Your task to perform on an android device: Open Google Maps and go to "Timeline" Image 0: 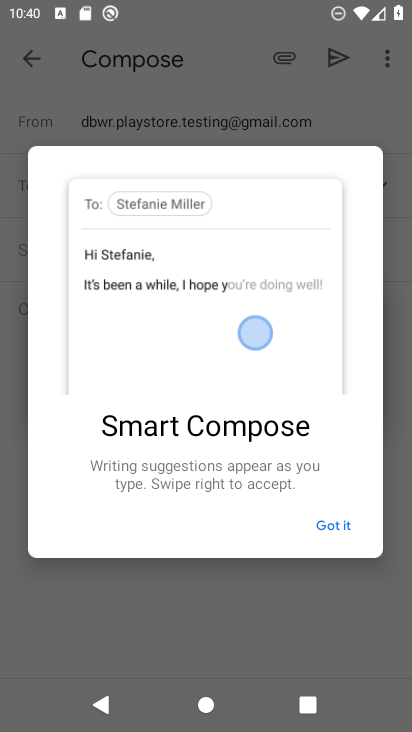
Step 0: press home button
Your task to perform on an android device: Open Google Maps and go to "Timeline" Image 1: 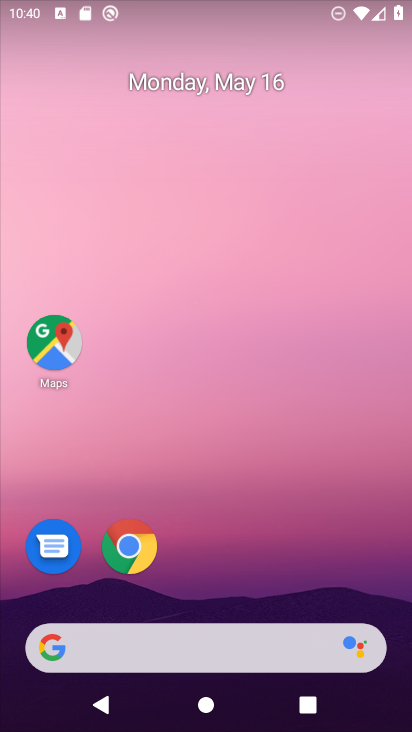
Step 1: click (46, 354)
Your task to perform on an android device: Open Google Maps and go to "Timeline" Image 2: 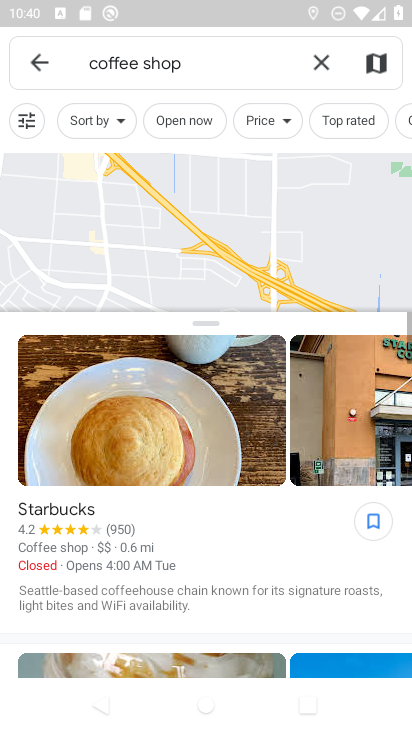
Step 2: click (50, 66)
Your task to perform on an android device: Open Google Maps and go to "Timeline" Image 3: 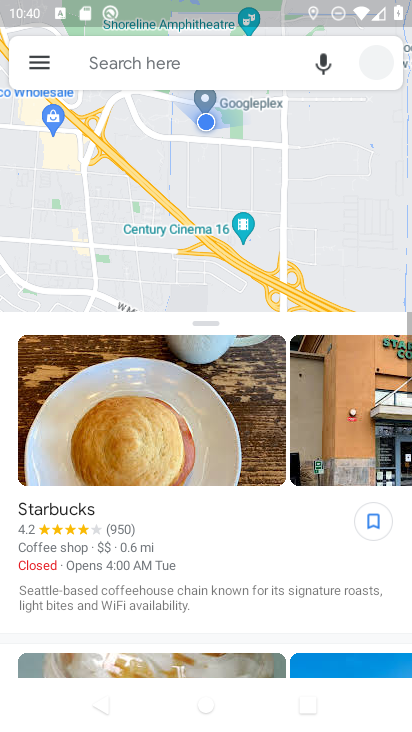
Step 3: click (50, 66)
Your task to perform on an android device: Open Google Maps and go to "Timeline" Image 4: 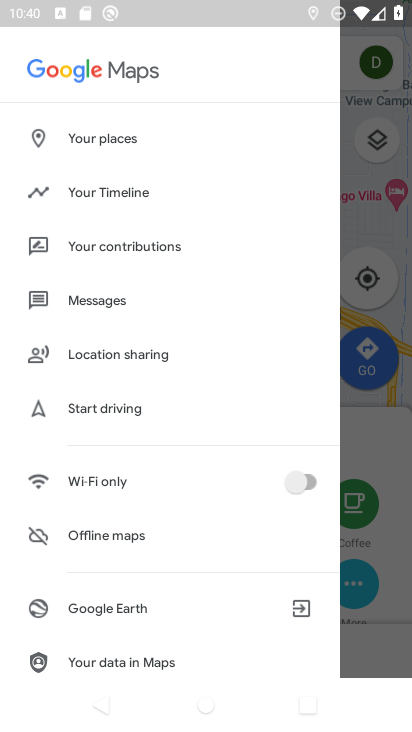
Step 4: click (130, 210)
Your task to perform on an android device: Open Google Maps and go to "Timeline" Image 5: 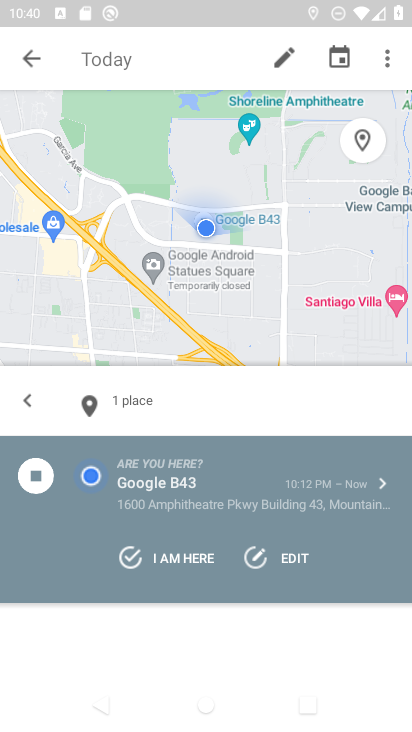
Step 5: task complete